Your task to perform on an android device: turn notification dots on Image 0: 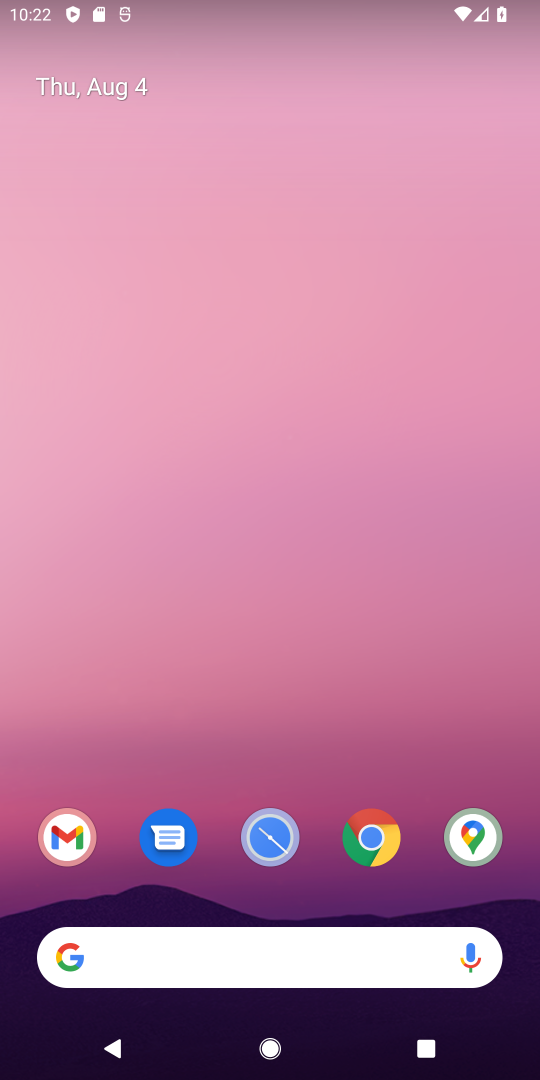
Step 0: drag from (417, 857) to (320, 51)
Your task to perform on an android device: turn notification dots on Image 1: 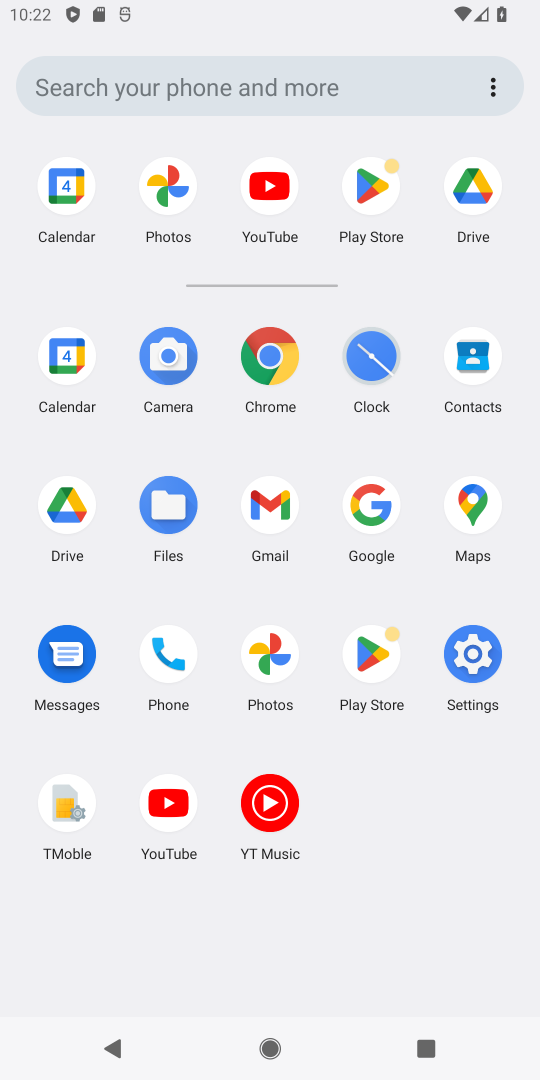
Step 1: click (474, 661)
Your task to perform on an android device: turn notification dots on Image 2: 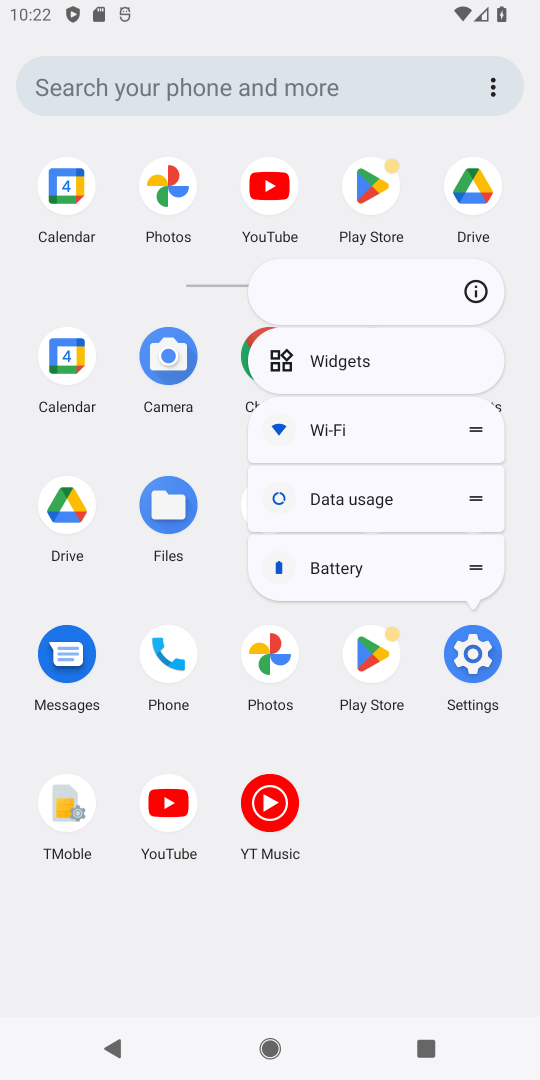
Step 2: click (474, 661)
Your task to perform on an android device: turn notification dots on Image 3: 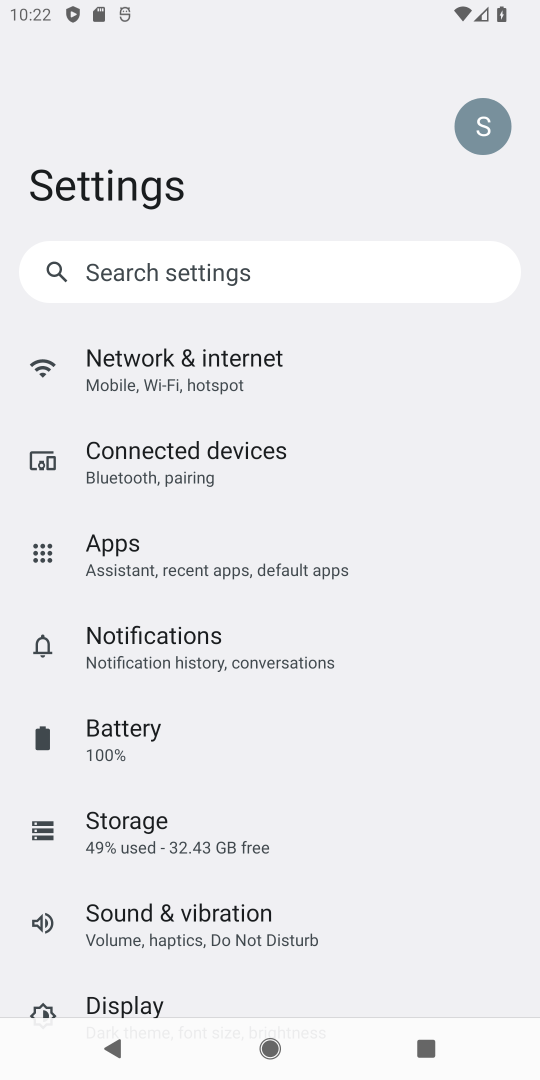
Step 3: click (177, 641)
Your task to perform on an android device: turn notification dots on Image 4: 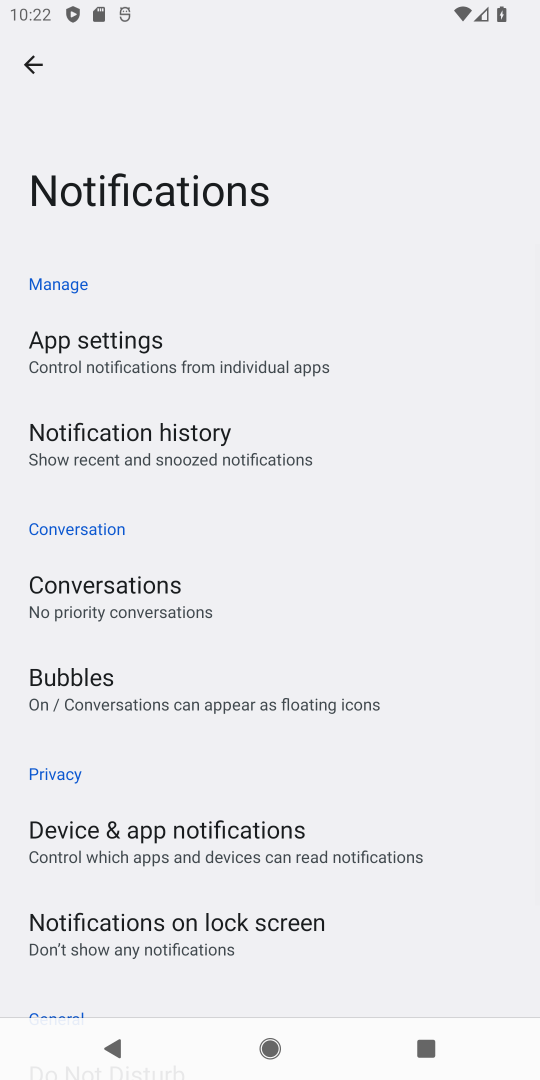
Step 4: task complete